Your task to perform on an android device: clear history in the chrome app Image 0: 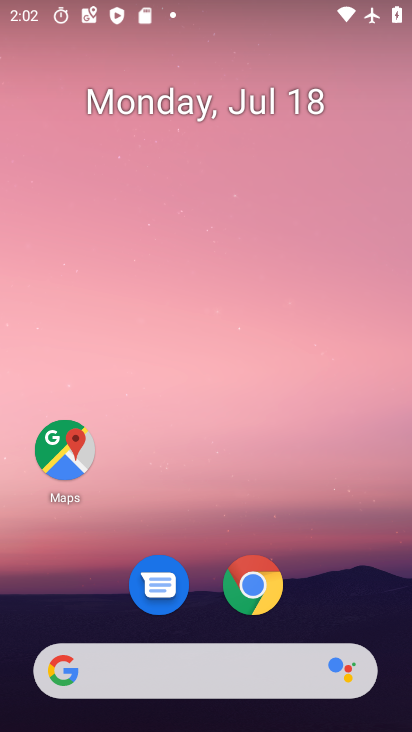
Step 0: press home button
Your task to perform on an android device: clear history in the chrome app Image 1: 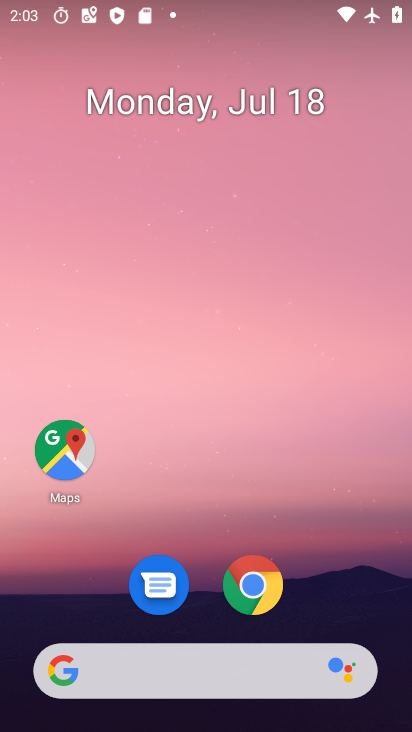
Step 1: click (246, 594)
Your task to perform on an android device: clear history in the chrome app Image 2: 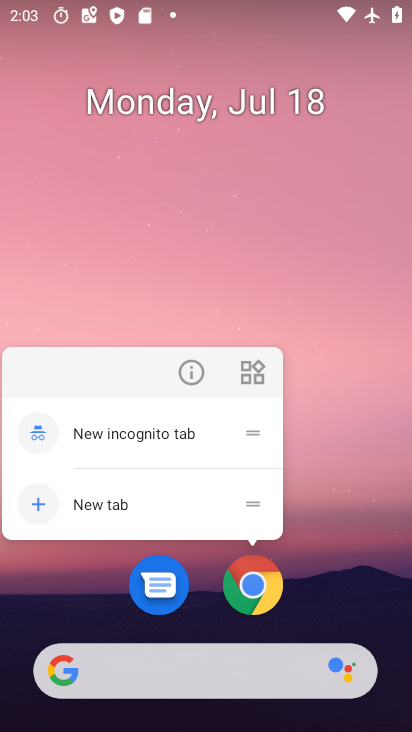
Step 2: click (254, 586)
Your task to perform on an android device: clear history in the chrome app Image 3: 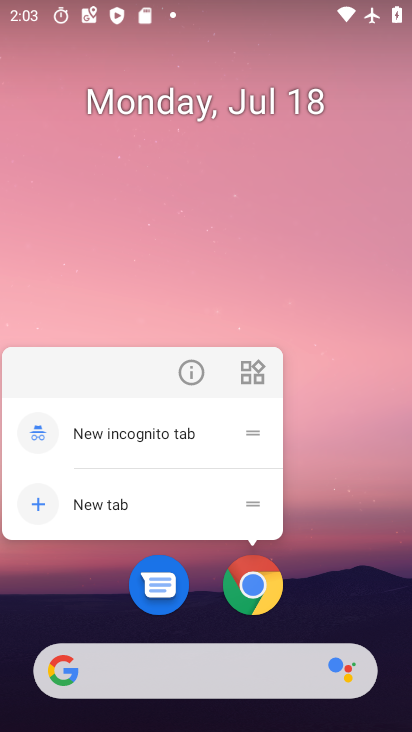
Step 3: click (254, 586)
Your task to perform on an android device: clear history in the chrome app Image 4: 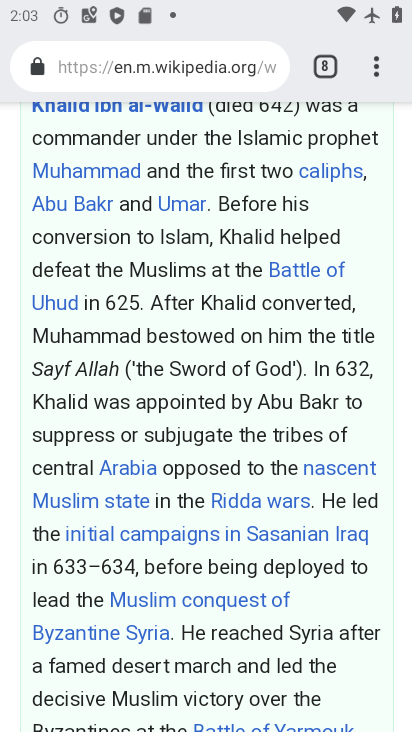
Step 4: drag from (372, 68) to (174, 358)
Your task to perform on an android device: clear history in the chrome app Image 5: 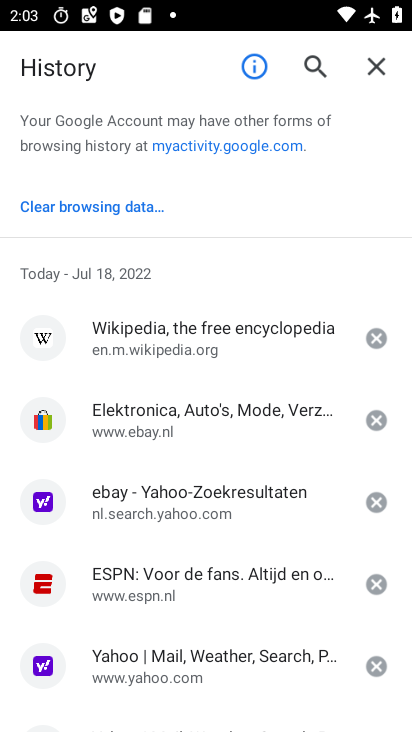
Step 5: click (112, 204)
Your task to perform on an android device: clear history in the chrome app Image 6: 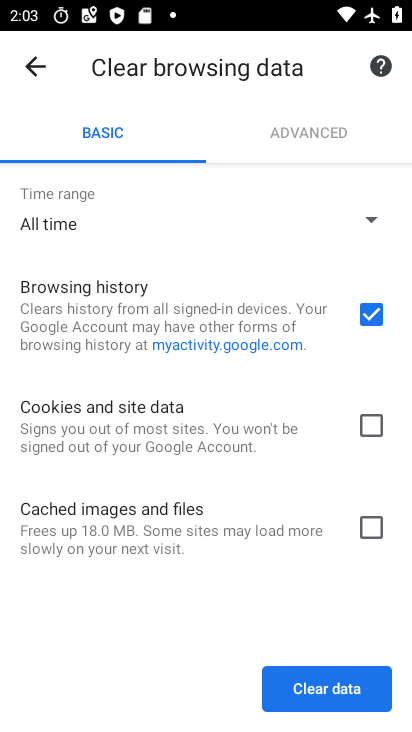
Step 6: click (371, 425)
Your task to perform on an android device: clear history in the chrome app Image 7: 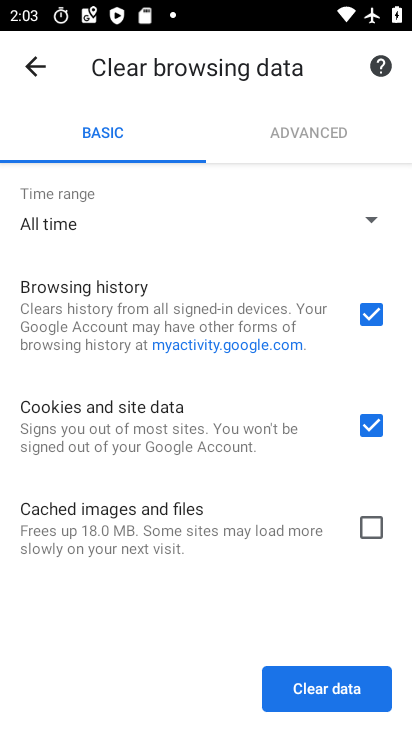
Step 7: click (363, 520)
Your task to perform on an android device: clear history in the chrome app Image 8: 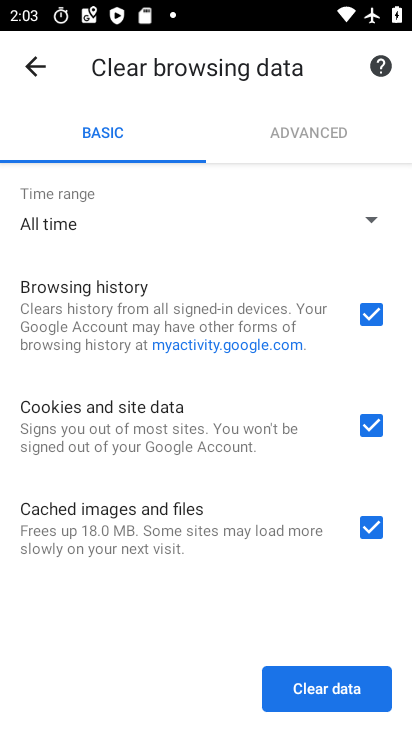
Step 8: click (325, 685)
Your task to perform on an android device: clear history in the chrome app Image 9: 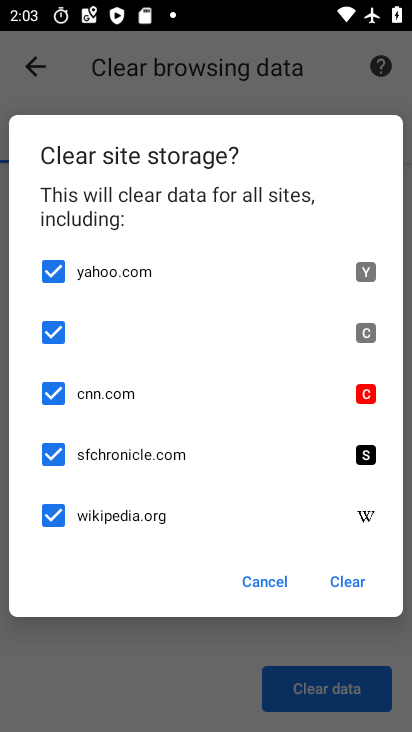
Step 9: click (346, 576)
Your task to perform on an android device: clear history in the chrome app Image 10: 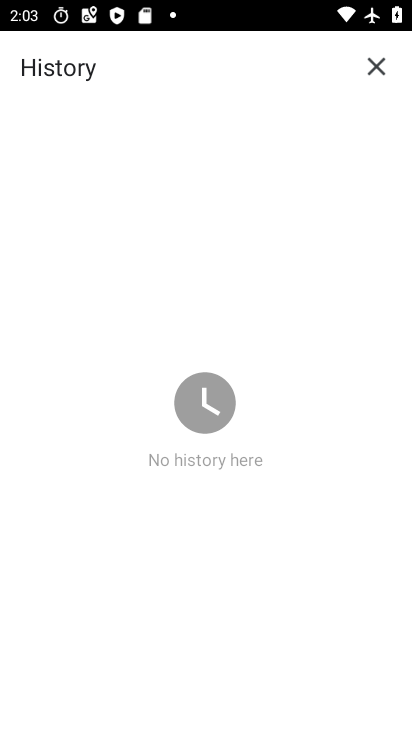
Step 10: task complete